Your task to perform on an android device: change the clock style Image 0: 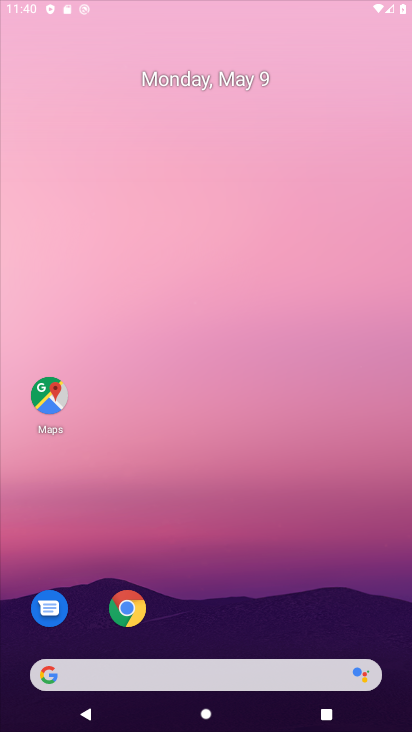
Step 0: drag from (163, 633) to (299, 138)
Your task to perform on an android device: change the clock style Image 1: 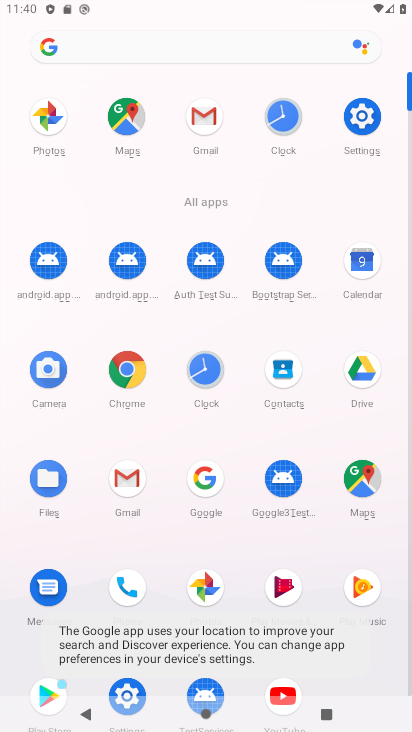
Step 1: click (194, 362)
Your task to perform on an android device: change the clock style Image 2: 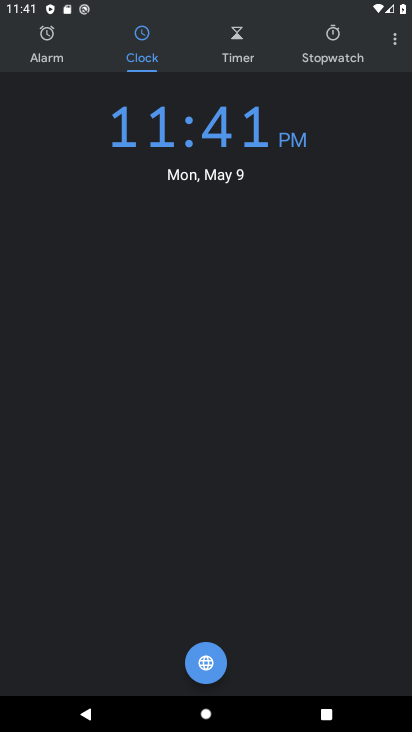
Step 2: click (410, 41)
Your task to perform on an android device: change the clock style Image 3: 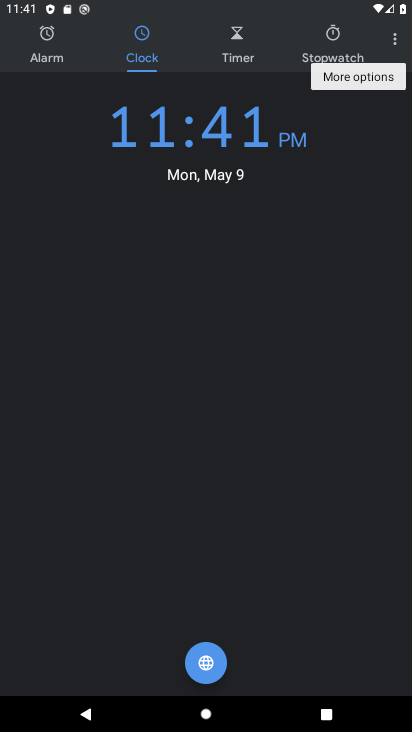
Step 3: click (394, 40)
Your task to perform on an android device: change the clock style Image 4: 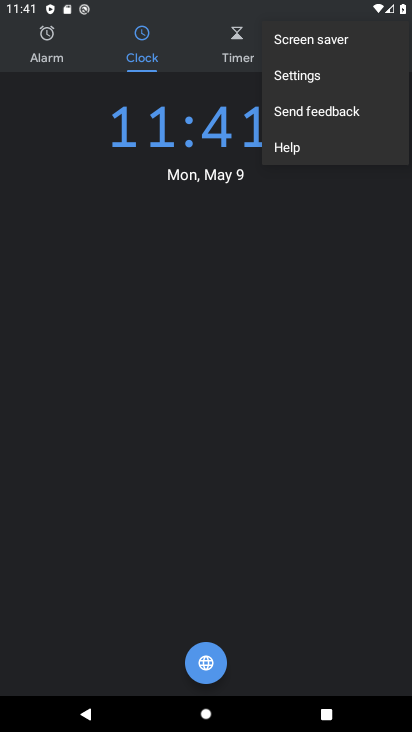
Step 4: click (365, 80)
Your task to perform on an android device: change the clock style Image 5: 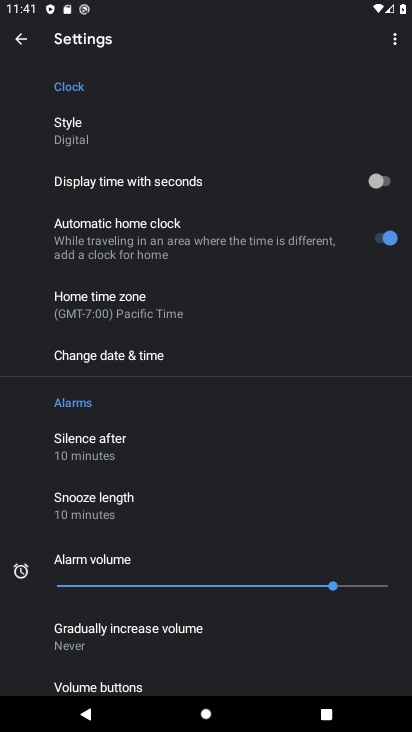
Step 5: drag from (209, 553) to (266, 578)
Your task to perform on an android device: change the clock style Image 6: 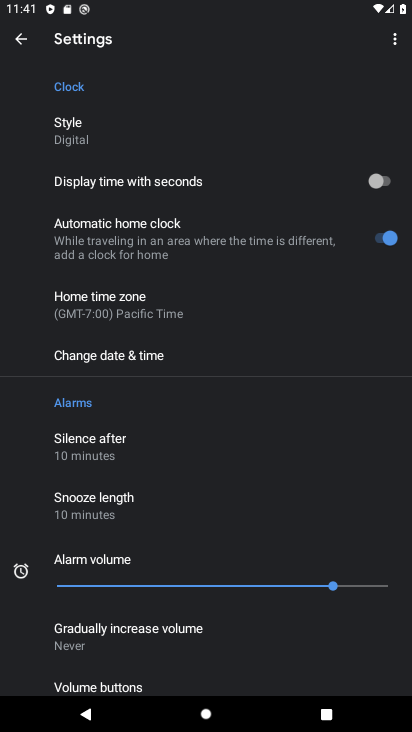
Step 6: click (161, 128)
Your task to perform on an android device: change the clock style Image 7: 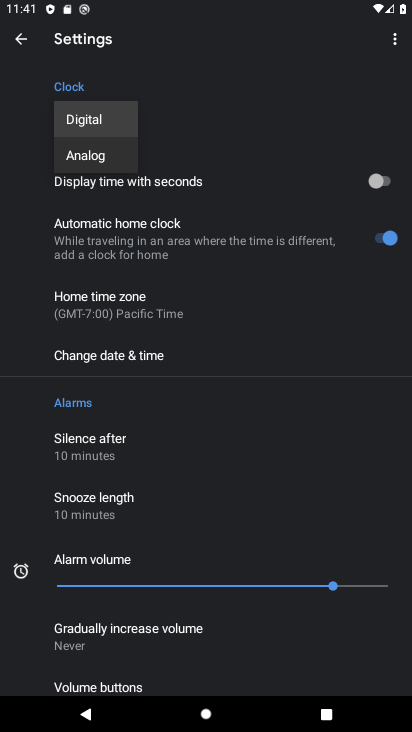
Step 7: click (122, 157)
Your task to perform on an android device: change the clock style Image 8: 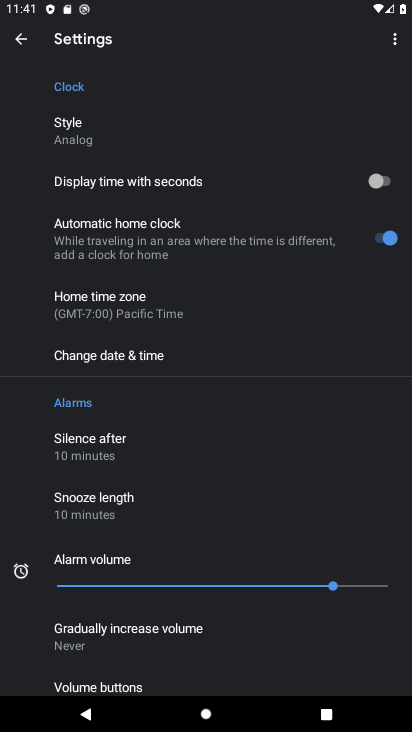
Step 8: task complete